Your task to perform on an android device: add a contact in the contacts app Image 0: 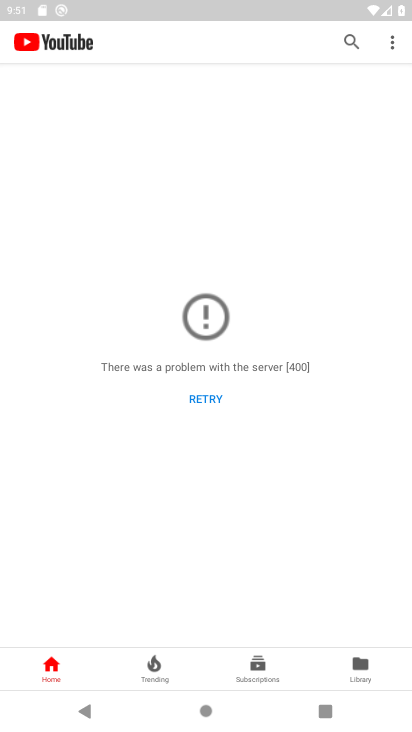
Step 0: press home button
Your task to perform on an android device: add a contact in the contacts app Image 1: 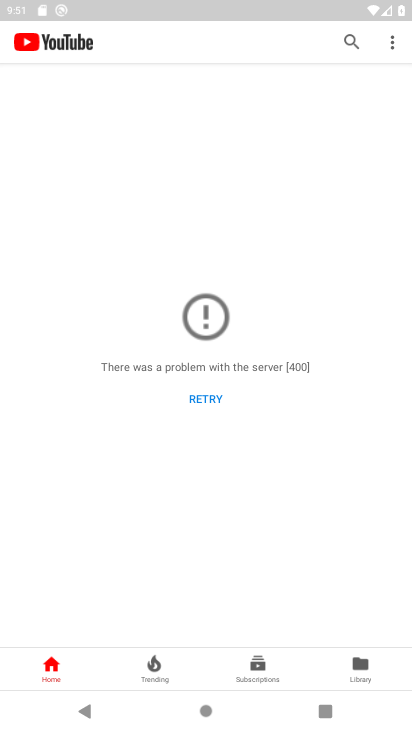
Step 1: press home button
Your task to perform on an android device: add a contact in the contacts app Image 2: 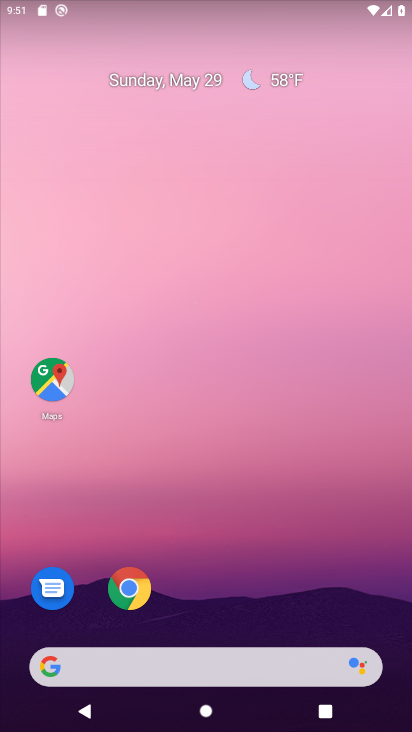
Step 2: drag from (274, 720) to (209, 203)
Your task to perform on an android device: add a contact in the contacts app Image 3: 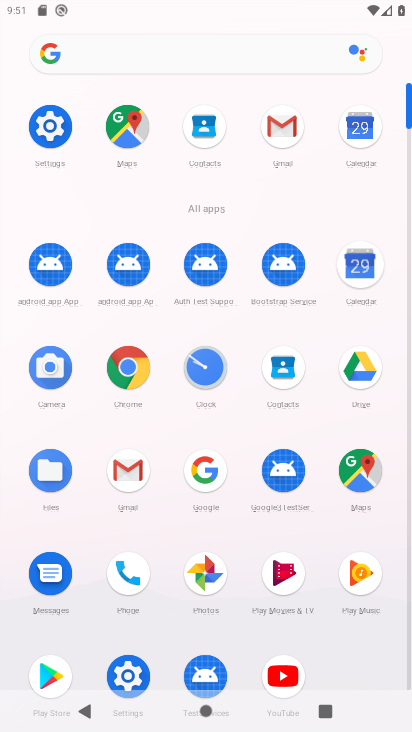
Step 3: click (287, 368)
Your task to perform on an android device: add a contact in the contacts app Image 4: 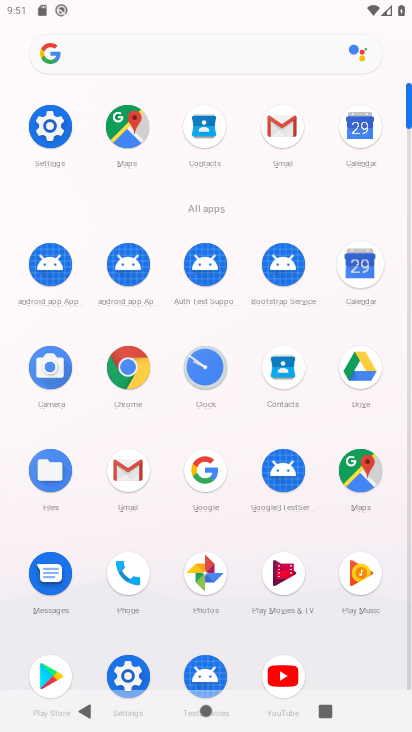
Step 4: click (287, 368)
Your task to perform on an android device: add a contact in the contacts app Image 5: 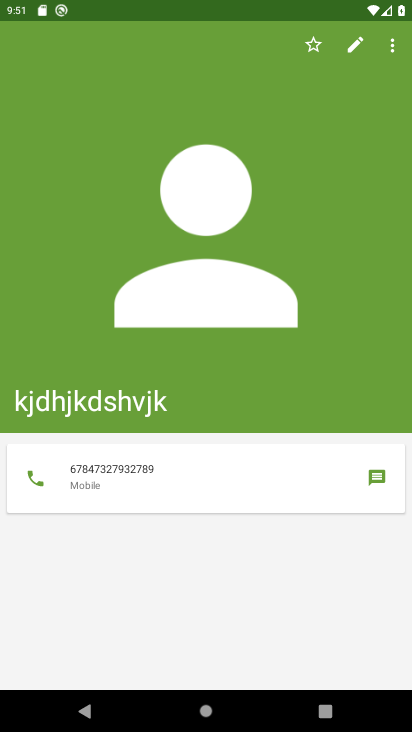
Step 5: click (288, 369)
Your task to perform on an android device: add a contact in the contacts app Image 6: 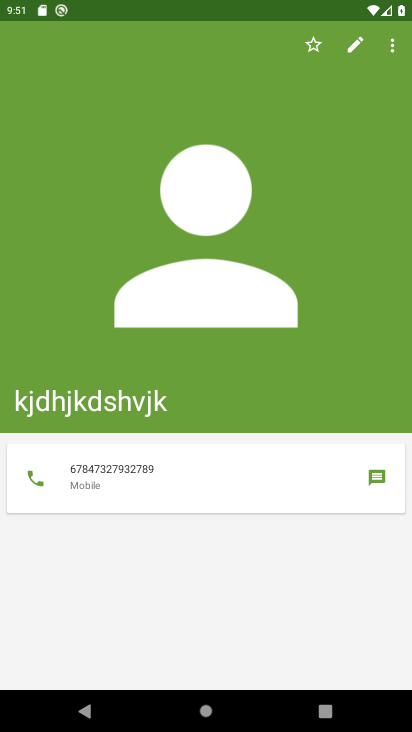
Step 6: click (349, 46)
Your task to perform on an android device: add a contact in the contacts app Image 7: 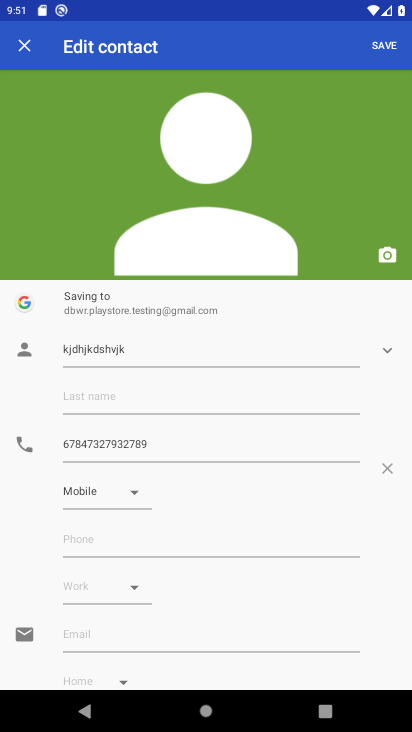
Step 7: click (27, 40)
Your task to perform on an android device: add a contact in the contacts app Image 8: 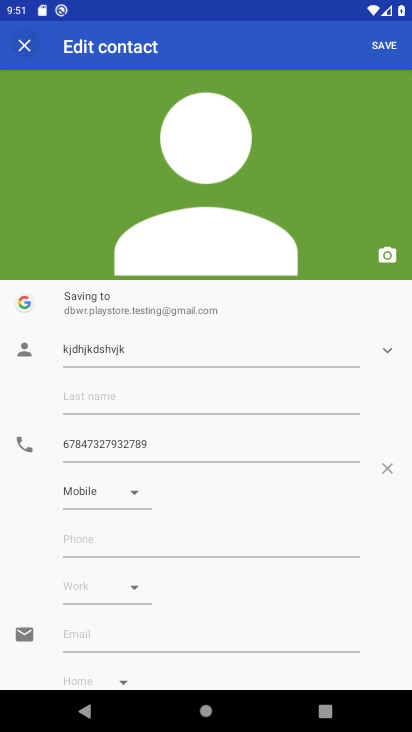
Step 8: click (29, 38)
Your task to perform on an android device: add a contact in the contacts app Image 9: 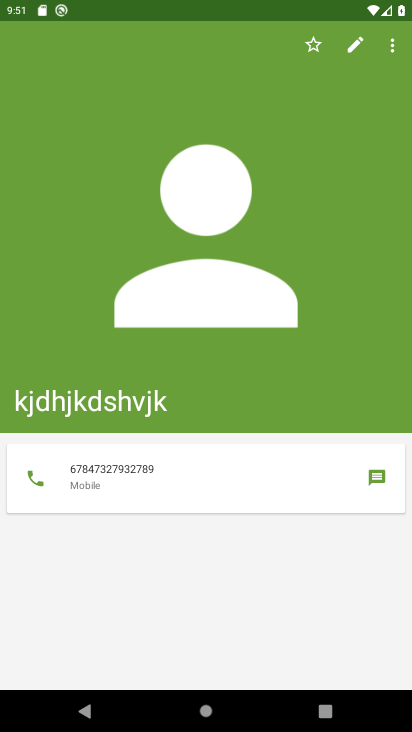
Step 9: press back button
Your task to perform on an android device: add a contact in the contacts app Image 10: 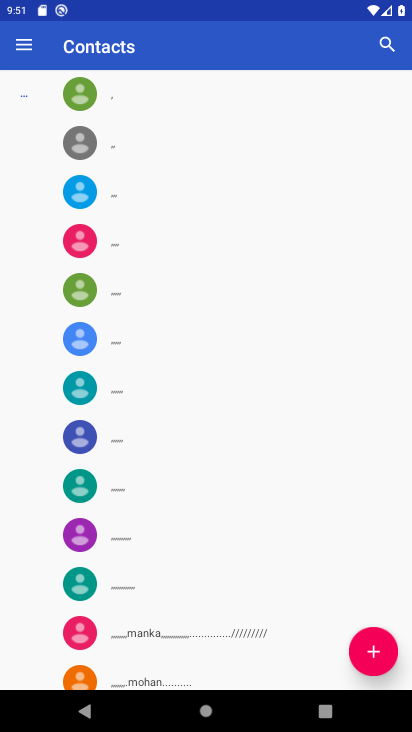
Step 10: click (372, 664)
Your task to perform on an android device: add a contact in the contacts app Image 11: 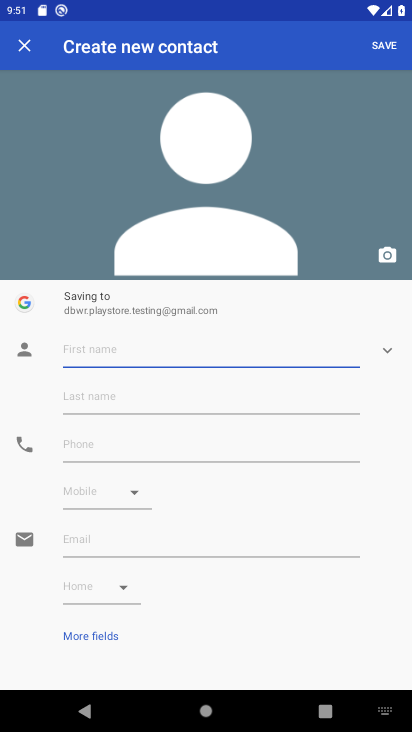
Step 11: type "bcsabchjca"
Your task to perform on an android device: add a contact in the contacts app Image 12: 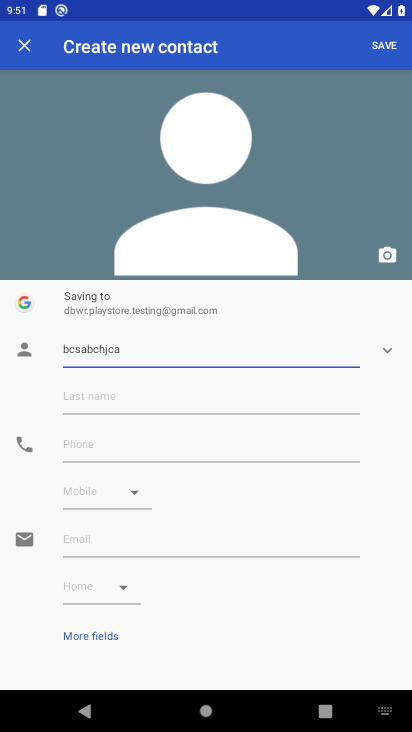
Step 12: click (80, 447)
Your task to perform on an android device: add a contact in the contacts app Image 13: 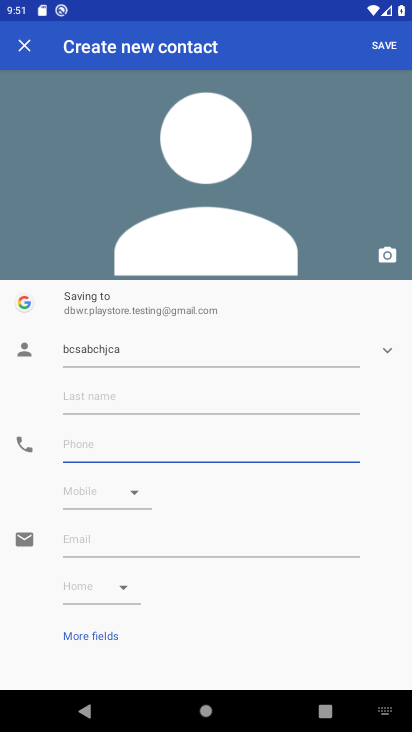
Step 13: type "983638757858"
Your task to perform on an android device: add a contact in the contacts app Image 14: 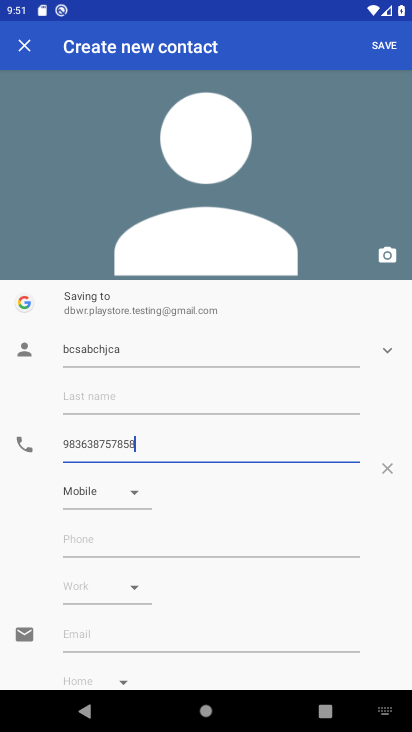
Step 14: click (387, 41)
Your task to perform on an android device: add a contact in the contacts app Image 15: 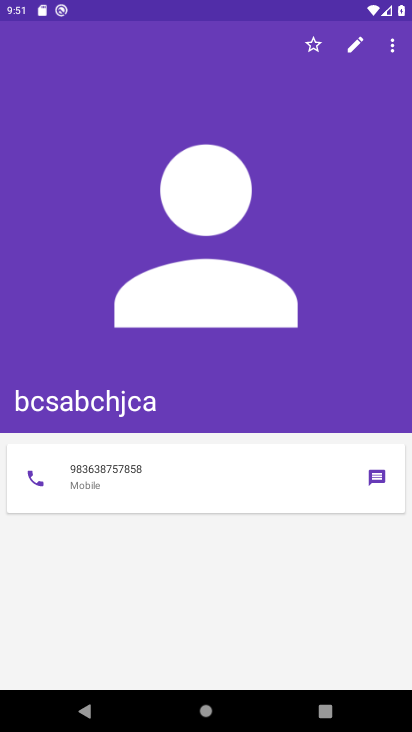
Step 15: task complete